Your task to perform on an android device: change timer sound Image 0: 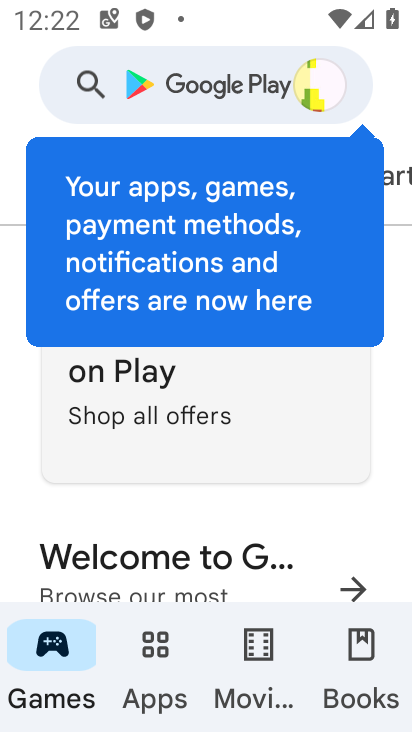
Step 0: press home button
Your task to perform on an android device: change timer sound Image 1: 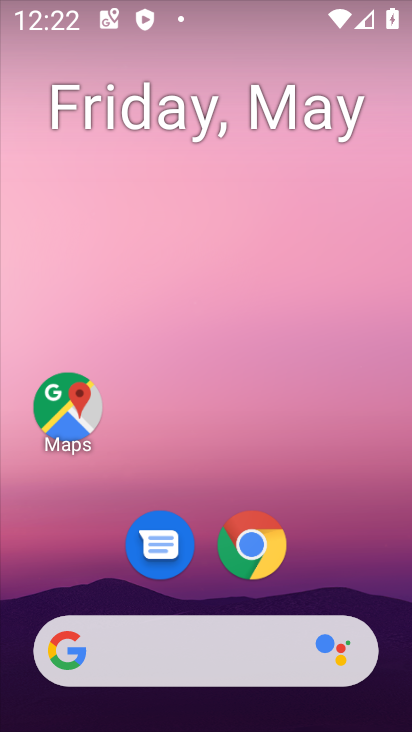
Step 1: drag from (324, 592) to (289, 304)
Your task to perform on an android device: change timer sound Image 2: 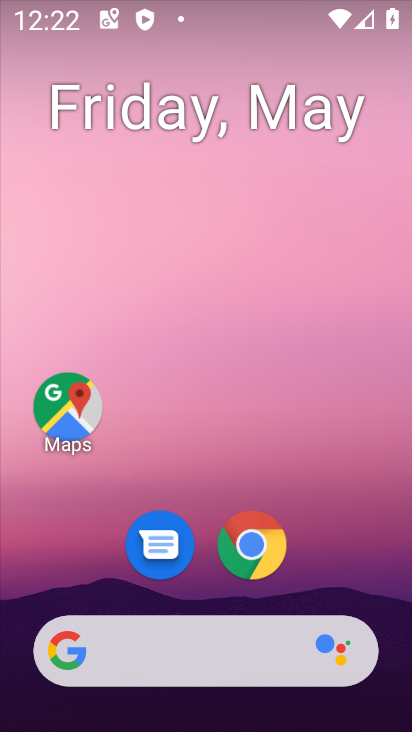
Step 2: drag from (312, 569) to (245, 267)
Your task to perform on an android device: change timer sound Image 3: 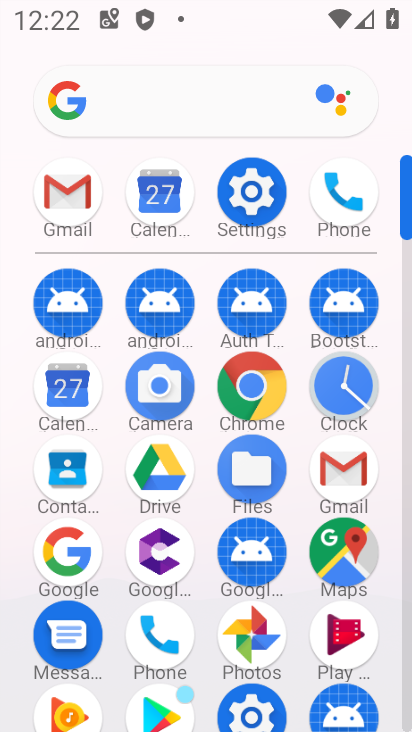
Step 3: click (349, 379)
Your task to perform on an android device: change timer sound Image 4: 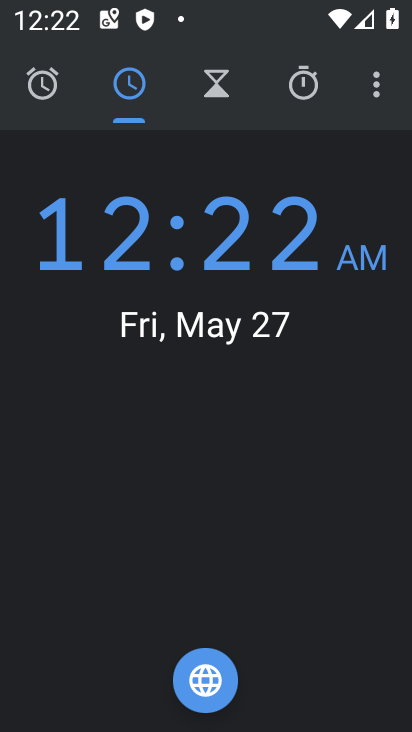
Step 4: click (387, 85)
Your task to perform on an android device: change timer sound Image 5: 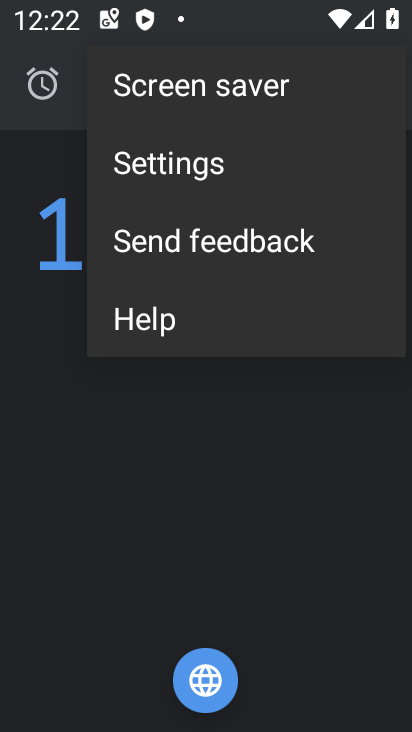
Step 5: click (203, 162)
Your task to perform on an android device: change timer sound Image 6: 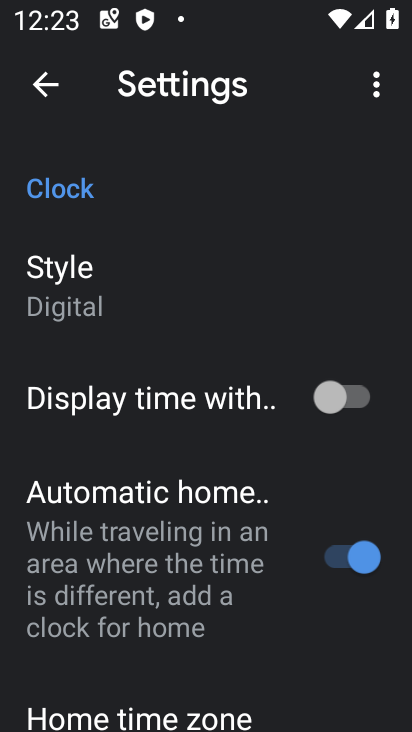
Step 6: drag from (235, 578) to (211, 163)
Your task to perform on an android device: change timer sound Image 7: 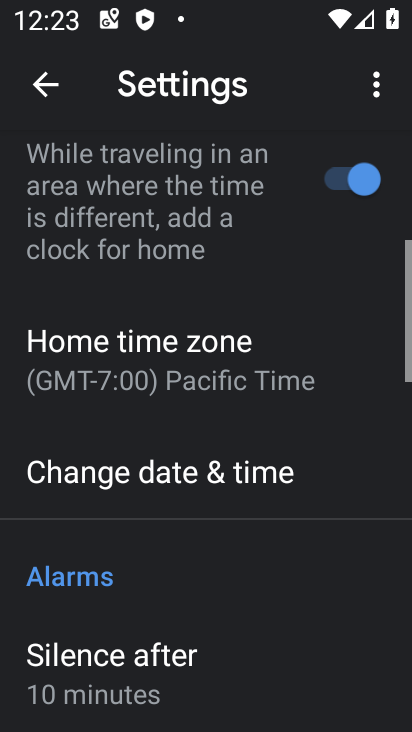
Step 7: drag from (165, 630) to (168, 216)
Your task to perform on an android device: change timer sound Image 8: 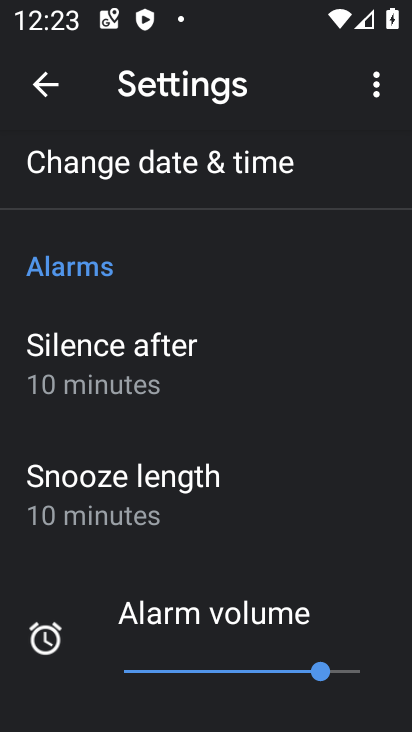
Step 8: drag from (253, 556) to (270, 217)
Your task to perform on an android device: change timer sound Image 9: 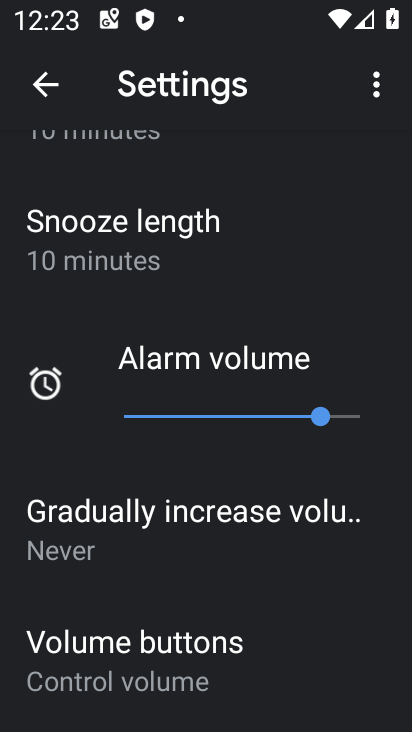
Step 9: drag from (157, 619) to (157, 256)
Your task to perform on an android device: change timer sound Image 10: 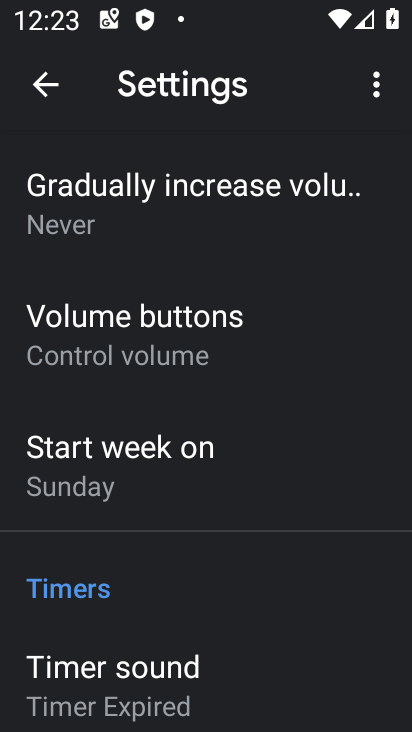
Step 10: click (174, 692)
Your task to perform on an android device: change timer sound Image 11: 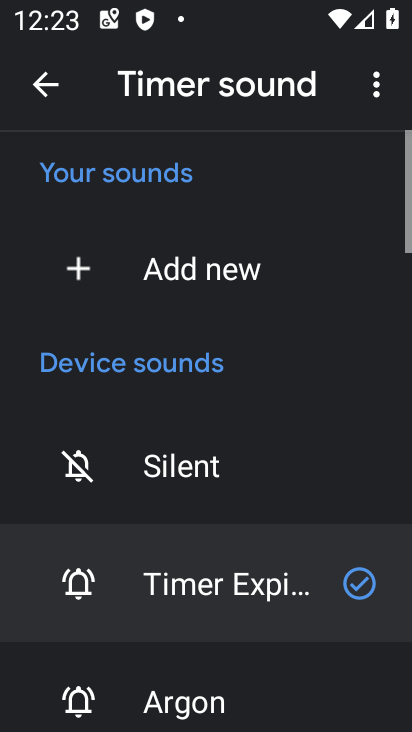
Step 11: click (181, 455)
Your task to perform on an android device: change timer sound Image 12: 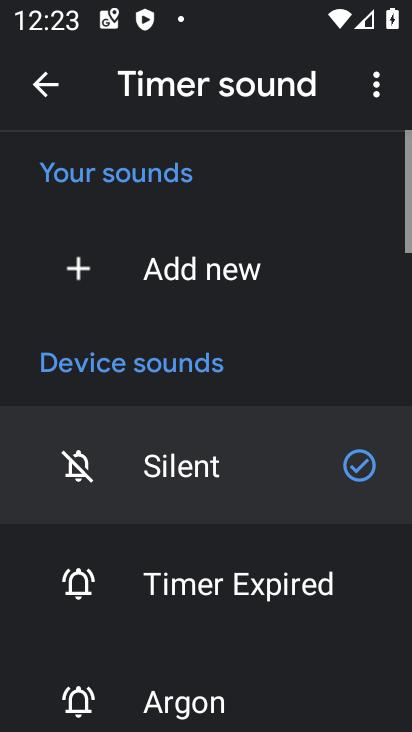
Step 12: task complete